Your task to perform on an android device: turn off notifications in google photos Image 0: 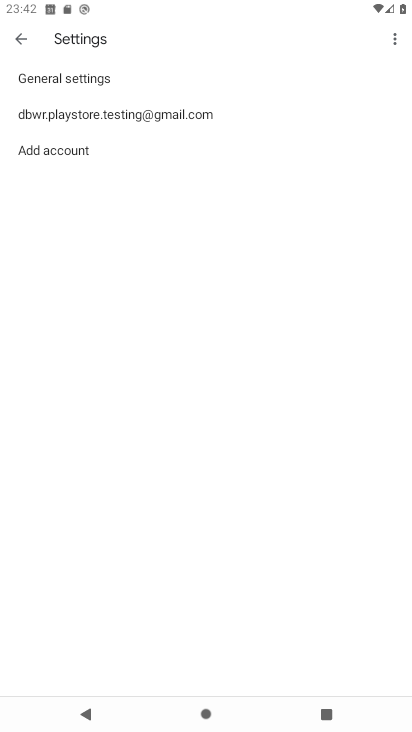
Step 0: press home button
Your task to perform on an android device: turn off notifications in google photos Image 1: 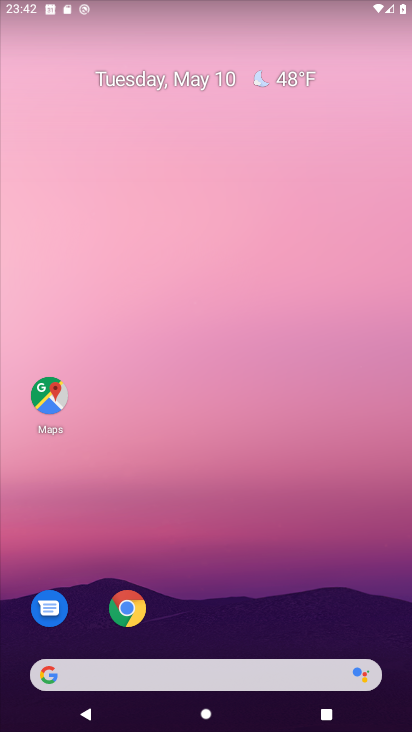
Step 1: drag from (261, 602) to (270, 115)
Your task to perform on an android device: turn off notifications in google photos Image 2: 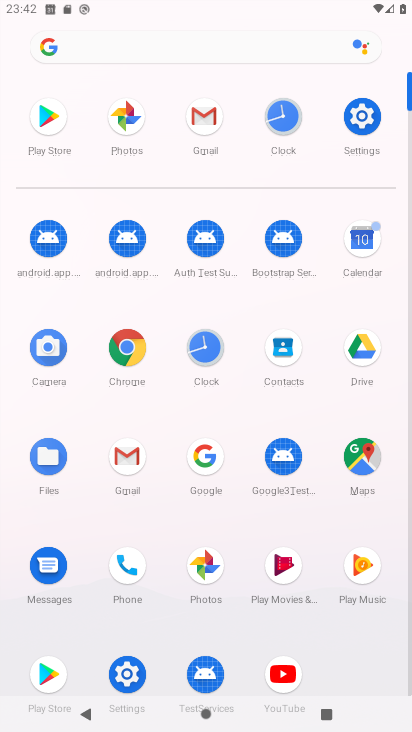
Step 2: click (135, 113)
Your task to perform on an android device: turn off notifications in google photos Image 3: 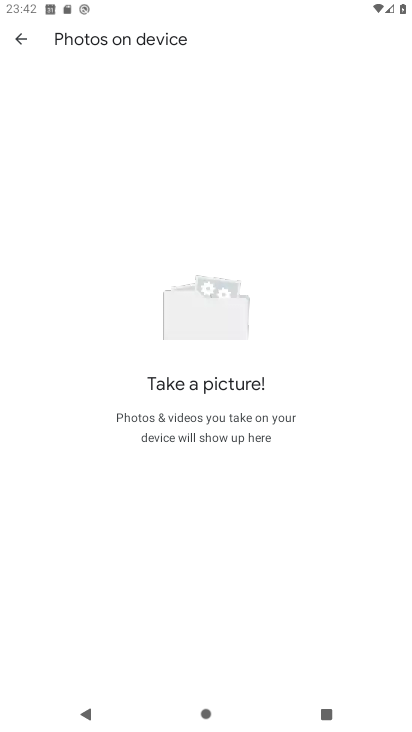
Step 3: click (14, 37)
Your task to perform on an android device: turn off notifications in google photos Image 4: 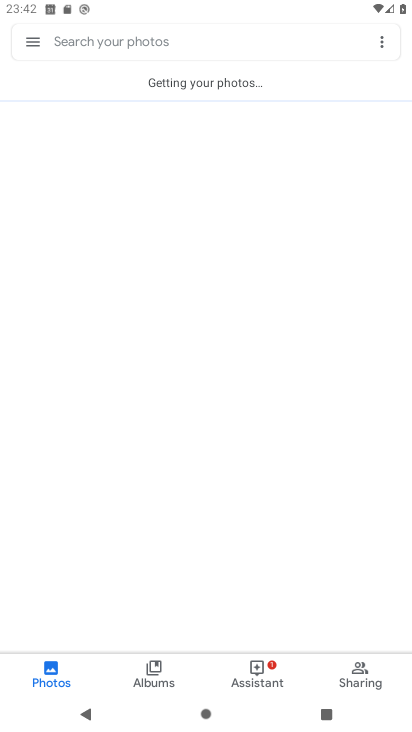
Step 4: click (29, 41)
Your task to perform on an android device: turn off notifications in google photos Image 5: 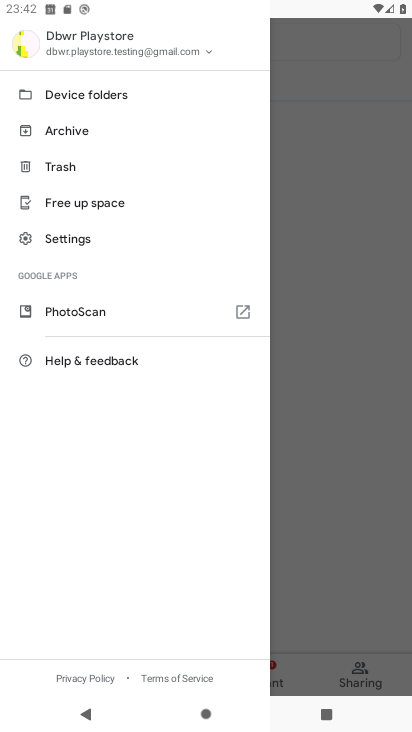
Step 5: click (101, 252)
Your task to perform on an android device: turn off notifications in google photos Image 6: 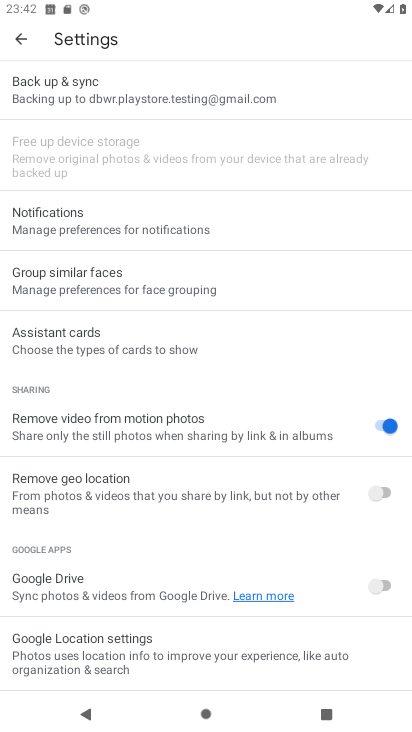
Step 6: click (107, 225)
Your task to perform on an android device: turn off notifications in google photos Image 7: 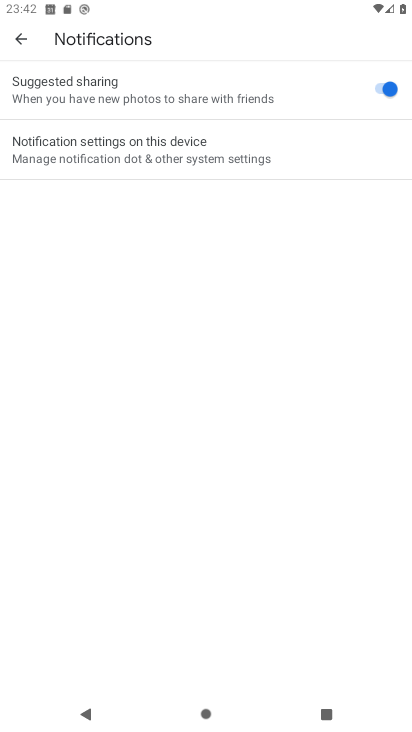
Step 7: click (180, 157)
Your task to perform on an android device: turn off notifications in google photos Image 8: 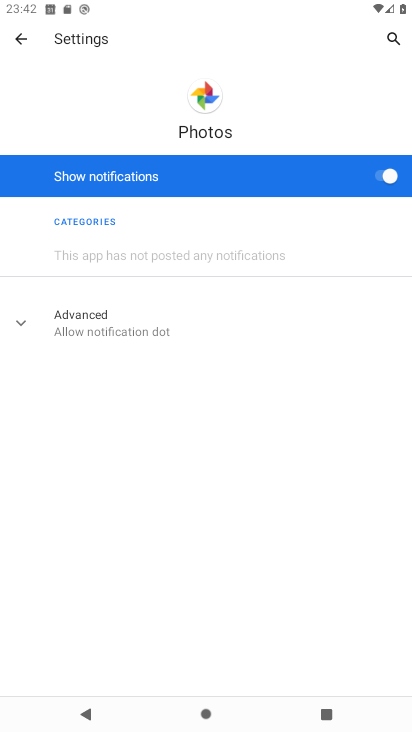
Step 8: click (392, 182)
Your task to perform on an android device: turn off notifications in google photos Image 9: 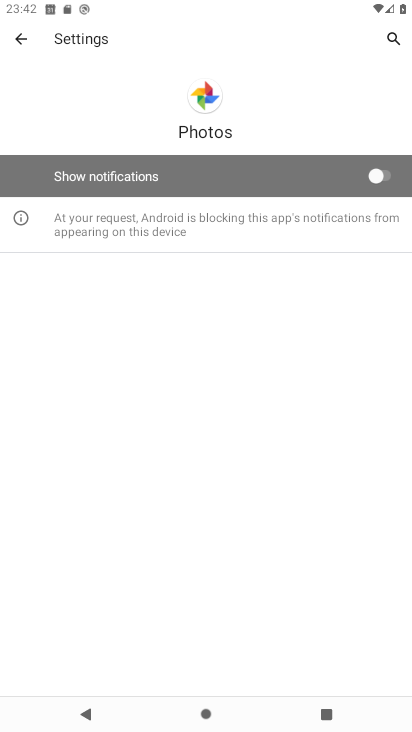
Step 9: task complete